Your task to perform on an android device: empty trash in the gmail app Image 0: 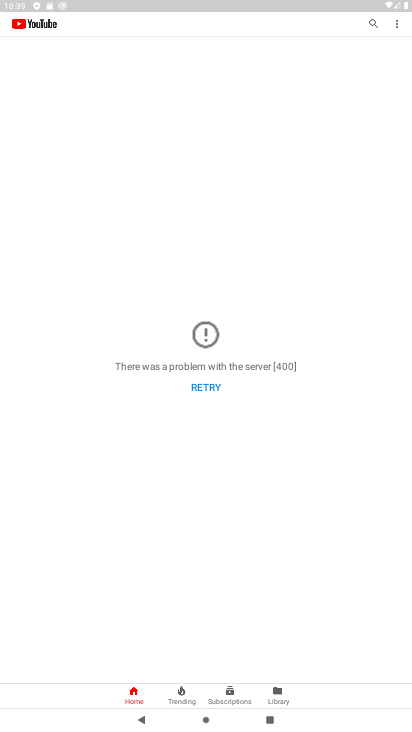
Step 0: press home button
Your task to perform on an android device: empty trash in the gmail app Image 1: 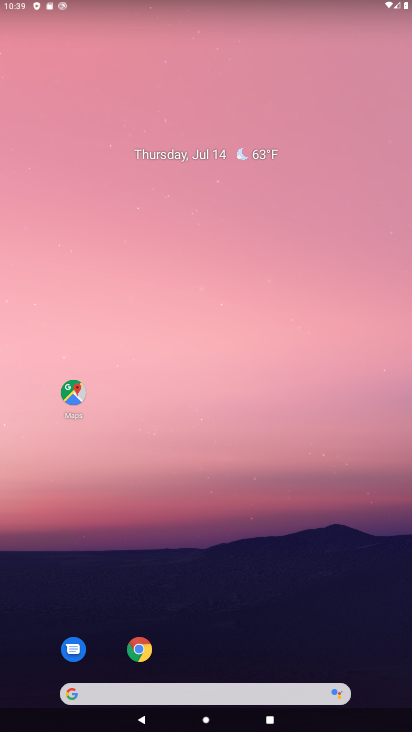
Step 1: drag from (319, 622) to (273, 121)
Your task to perform on an android device: empty trash in the gmail app Image 2: 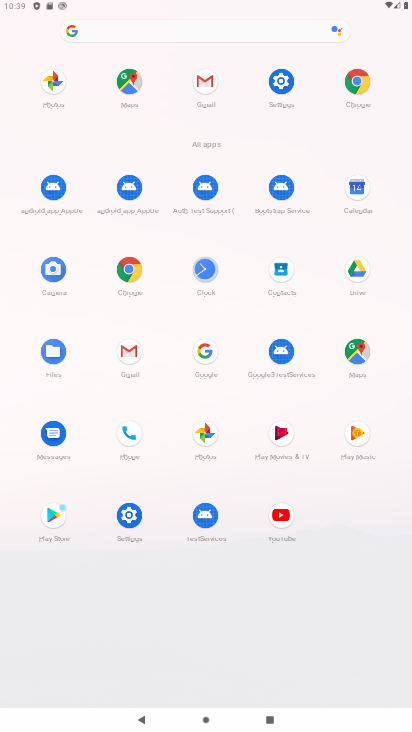
Step 2: click (191, 75)
Your task to perform on an android device: empty trash in the gmail app Image 3: 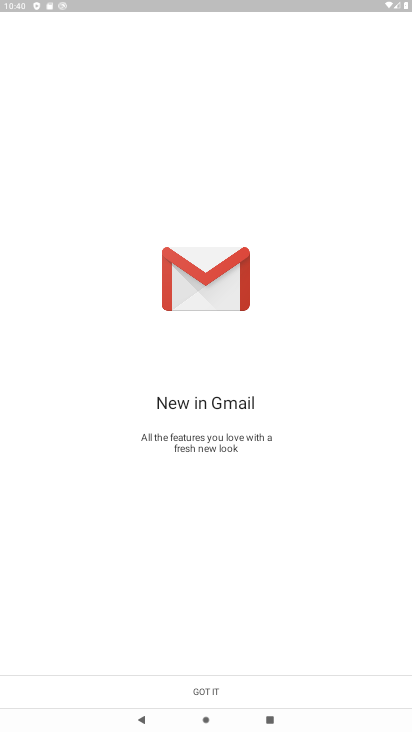
Step 3: click (218, 682)
Your task to perform on an android device: empty trash in the gmail app Image 4: 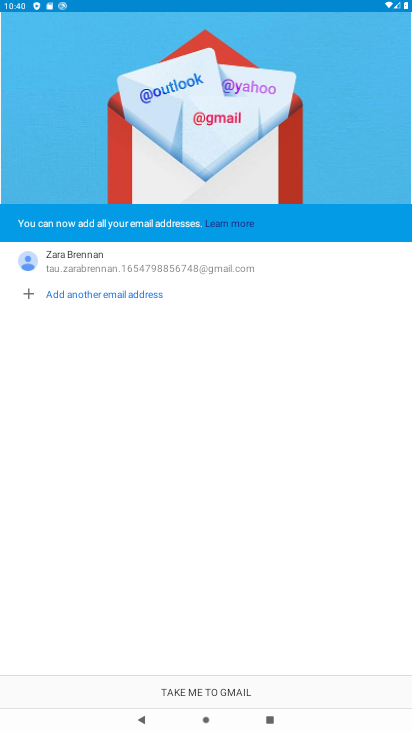
Step 4: click (220, 694)
Your task to perform on an android device: empty trash in the gmail app Image 5: 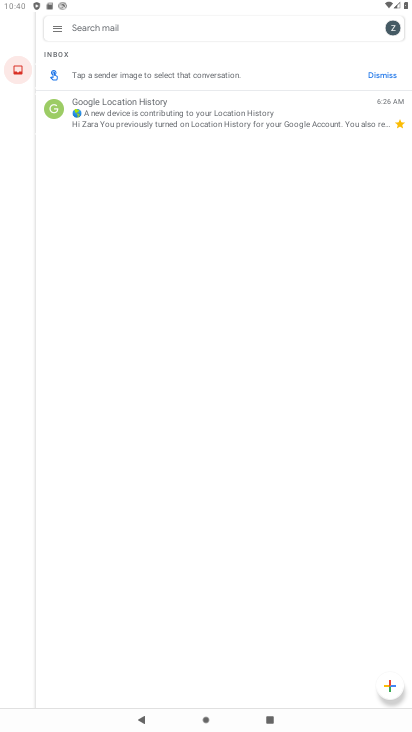
Step 5: click (52, 23)
Your task to perform on an android device: empty trash in the gmail app Image 6: 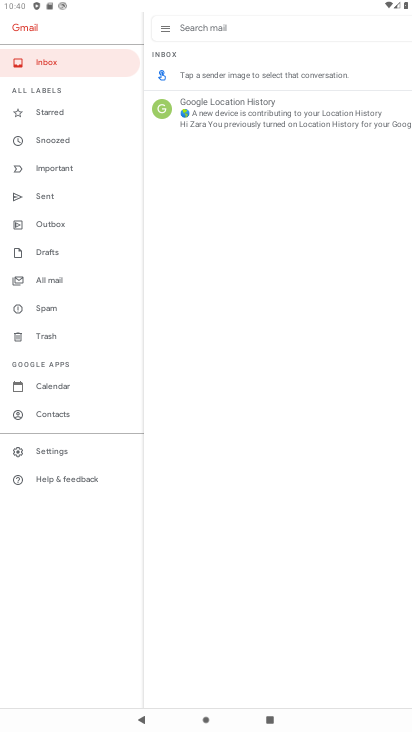
Step 6: click (39, 337)
Your task to perform on an android device: empty trash in the gmail app Image 7: 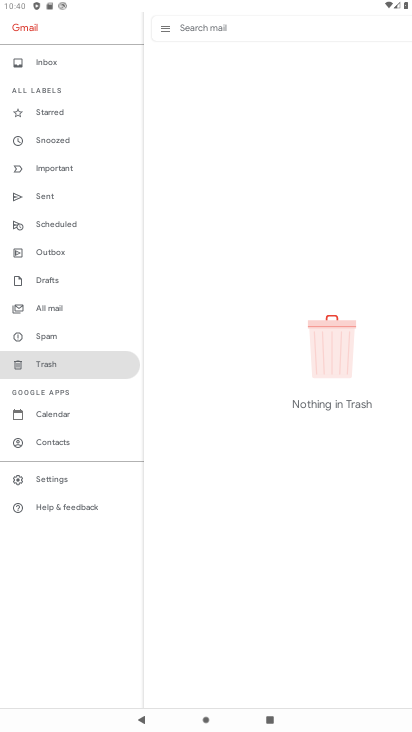
Step 7: task complete